Your task to perform on an android device: What's the weather going to be this weekend? Image 0: 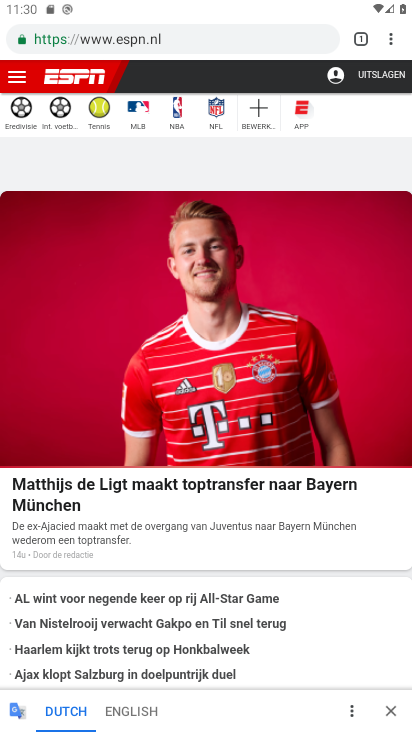
Step 0: press home button
Your task to perform on an android device: What's the weather going to be this weekend? Image 1: 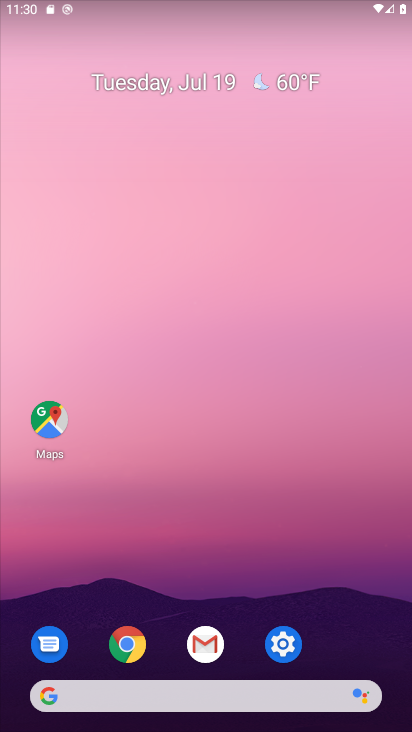
Step 1: click (143, 689)
Your task to perform on an android device: What's the weather going to be this weekend? Image 2: 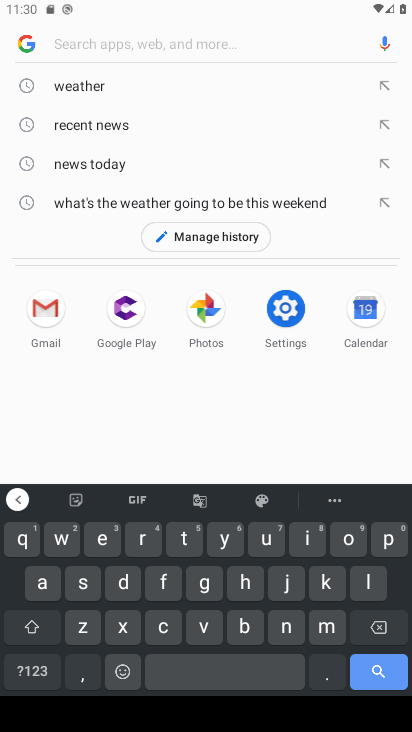
Step 2: click (124, 205)
Your task to perform on an android device: What's the weather going to be this weekend? Image 3: 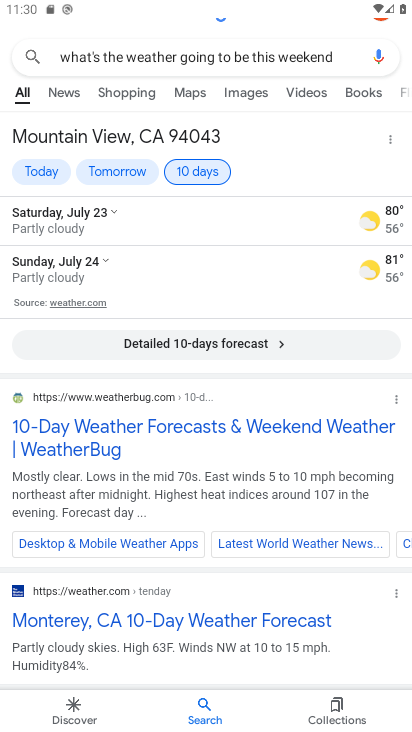
Step 3: task complete